Your task to perform on an android device: Play the last video I watched on Youtube Image 0: 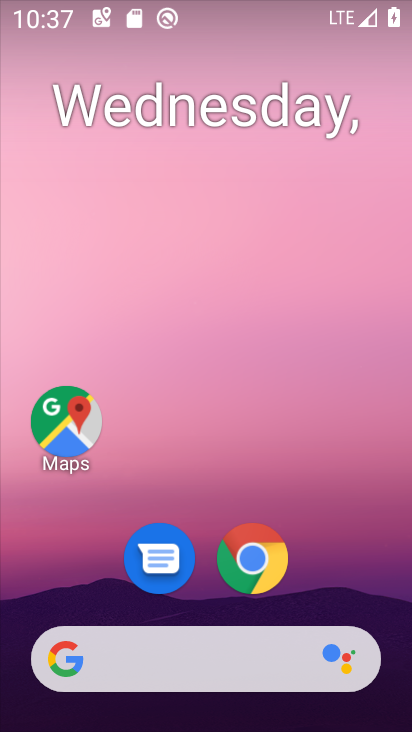
Step 0: drag from (74, 511) to (274, 173)
Your task to perform on an android device: Play the last video I watched on Youtube Image 1: 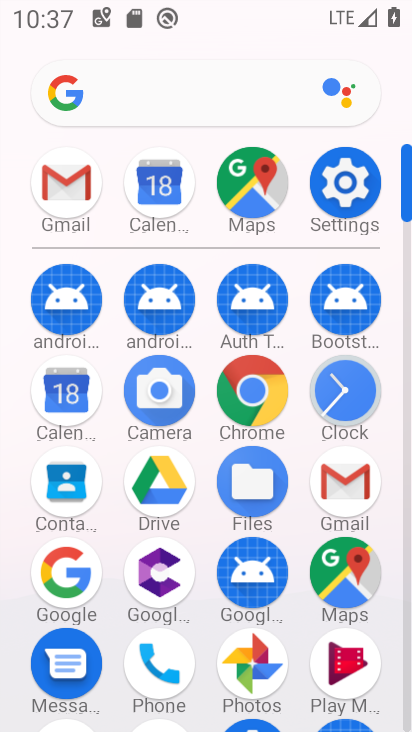
Step 1: drag from (34, 698) to (299, 182)
Your task to perform on an android device: Play the last video I watched on Youtube Image 2: 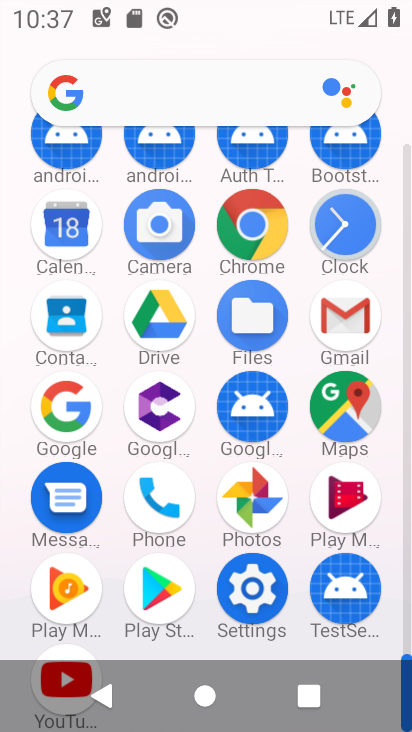
Step 2: click (75, 645)
Your task to perform on an android device: Play the last video I watched on Youtube Image 3: 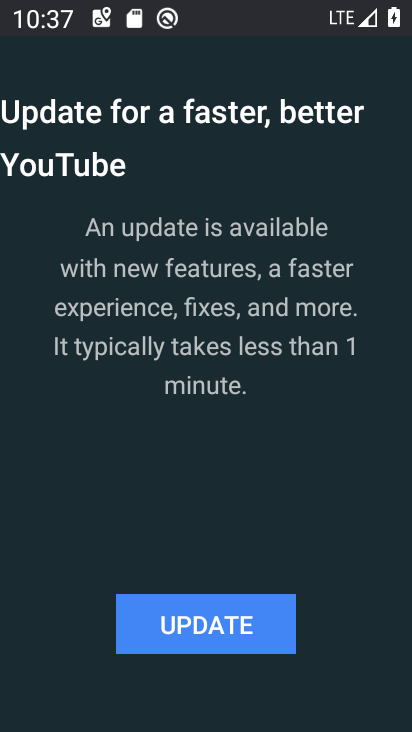
Step 3: task complete